Your task to perform on an android device: turn off sleep mode Image 0: 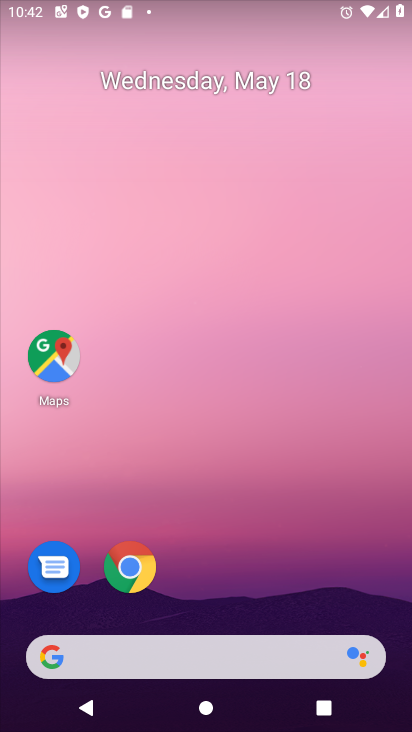
Step 0: drag from (211, 660) to (198, 43)
Your task to perform on an android device: turn off sleep mode Image 1: 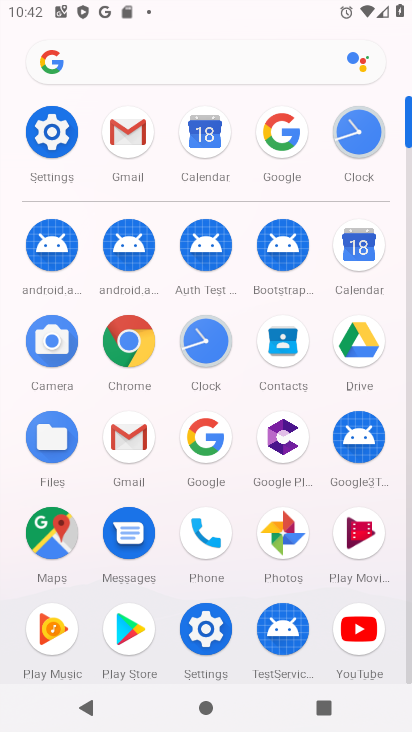
Step 1: click (55, 140)
Your task to perform on an android device: turn off sleep mode Image 2: 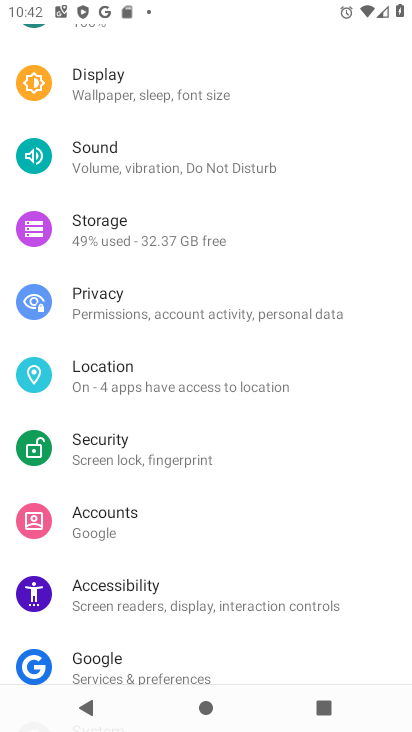
Step 2: click (116, 92)
Your task to perform on an android device: turn off sleep mode Image 3: 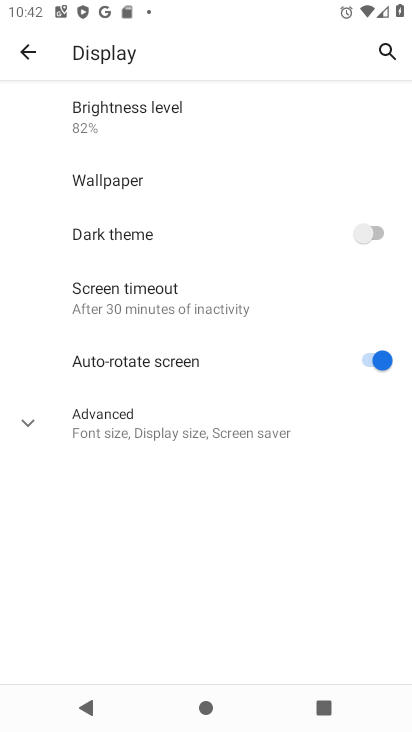
Step 3: click (136, 428)
Your task to perform on an android device: turn off sleep mode Image 4: 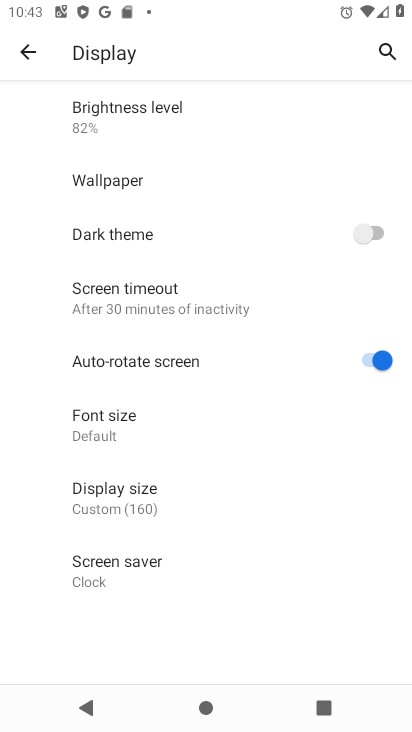
Step 4: task complete